Your task to perform on an android device: Show me popular videos on Youtube Image 0: 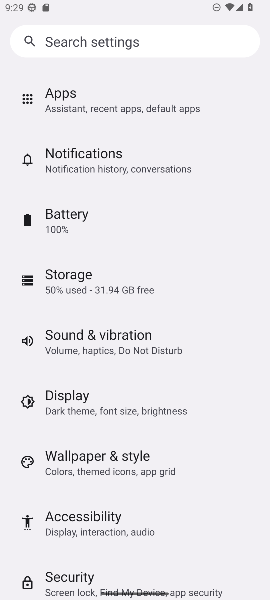
Step 0: press home button
Your task to perform on an android device: Show me popular videos on Youtube Image 1: 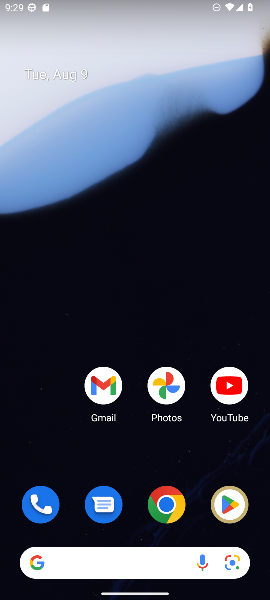
Step 1: click (230, 384)
Your task to perform on an android device: Show me popular videos on Youtube Image 2: 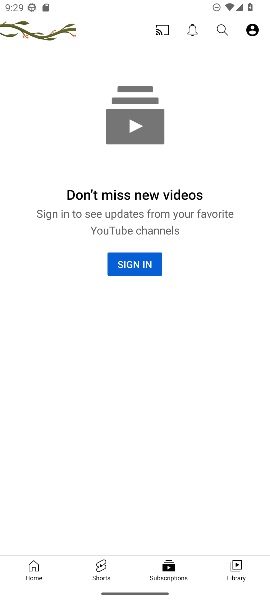
Step 2: click (95, 572)
Your task to perform on an android device: Show me popular videos on Youtube Image 3: 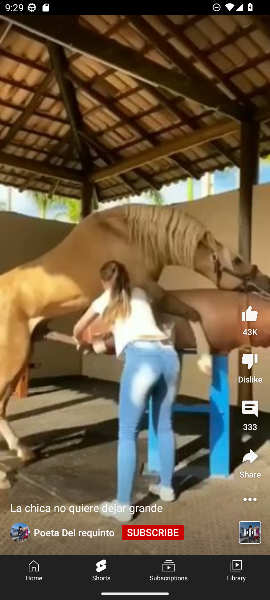
Step 3: task complete